Your task to perform on an android device: Open the calendar app, open the side menu, and click the "Day" option Image 0: 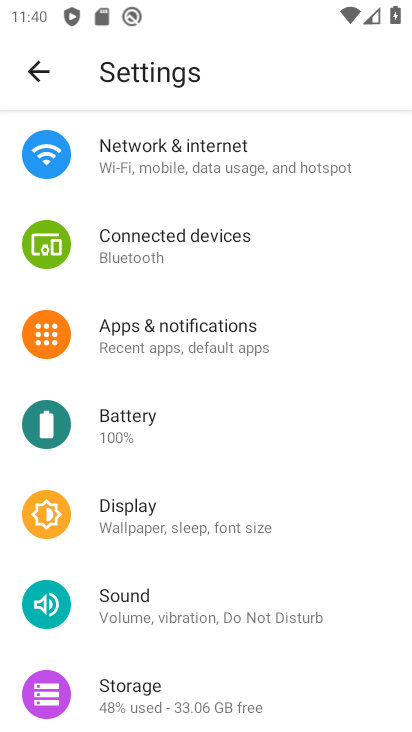
Step 0: click (268, 209)
Your task to perform on an android device: Open the calendar app, open the side menu, and click the "Day" option Image 1: 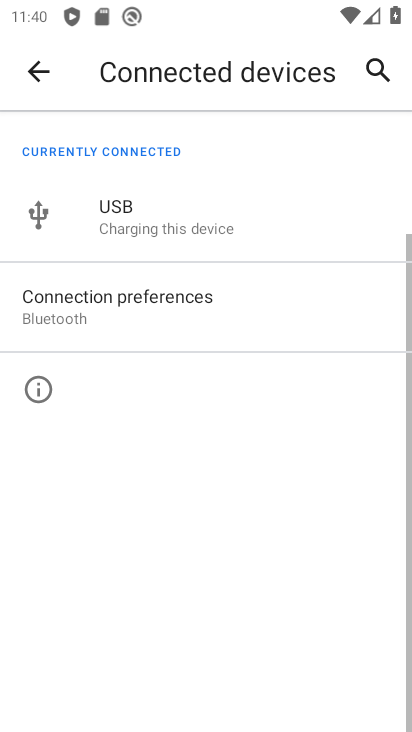
Step 1: drag from (154, 208) to (187, 634)
Your task to perform on an android device: Open the calendar app, open the side menu, and click the "Day" option Image 2: 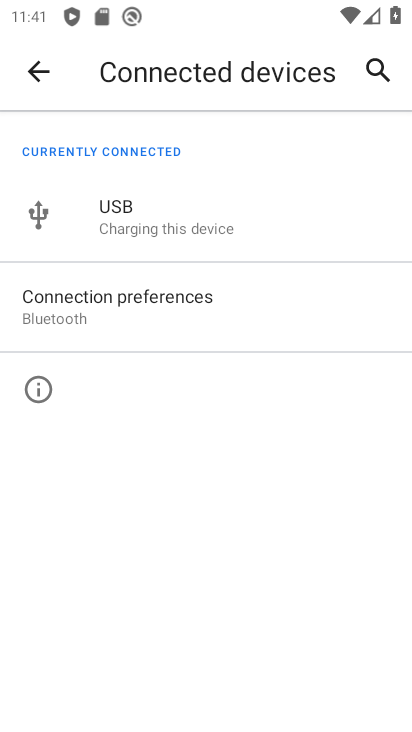
Step 2: press home button
Your task to perform on an android device: Open the calendar app, open the side menu, and click the "Day" option Image 3: 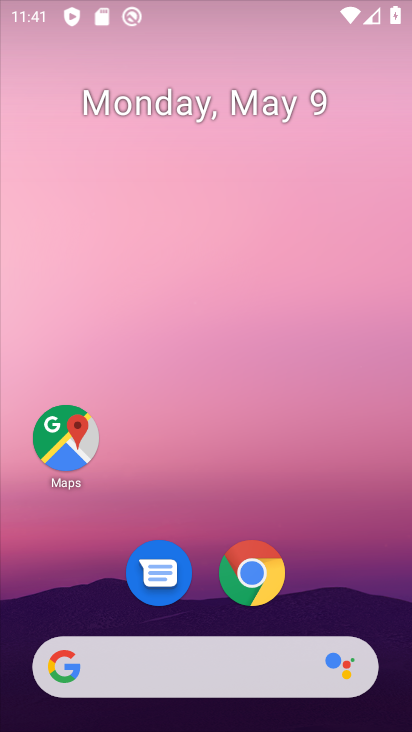
Step 3: drag from (189, 662) to (219, 159)
Your task to perform on an android device: Open the calendar app, open the side menu, and click the "Day" option Image 4: 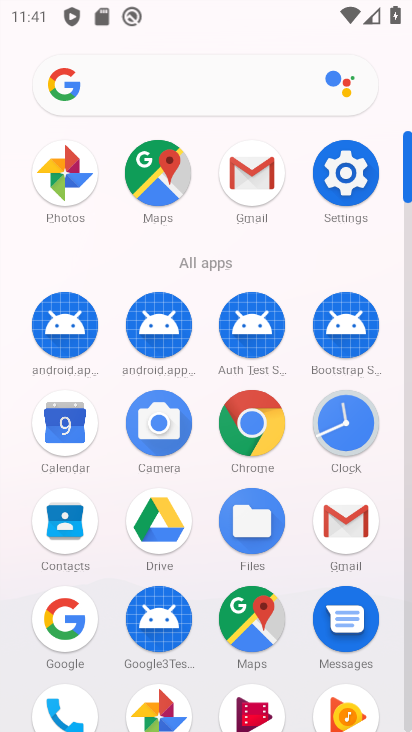
Step 4: drag from (196, 647) to (209, 254)
Your task to perform on an android device: Open the calendar app, open the side menu, and click the "Day" option Image 5: 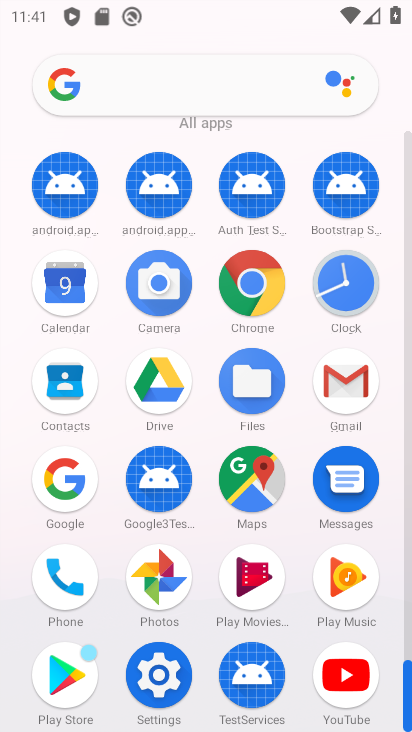
Step 5: click (57, 289)
Your task to perform on an android device: Open the calendar app, open the side menu, and click the "Day" option Image 6: 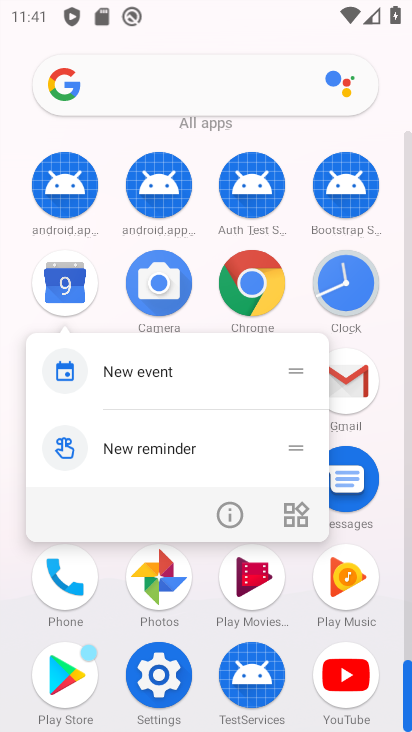
Step 6: click (237, 512)
Your task to perform on an android device: Open the calendar app, open the side menu, and click the "Day" option Image 7: 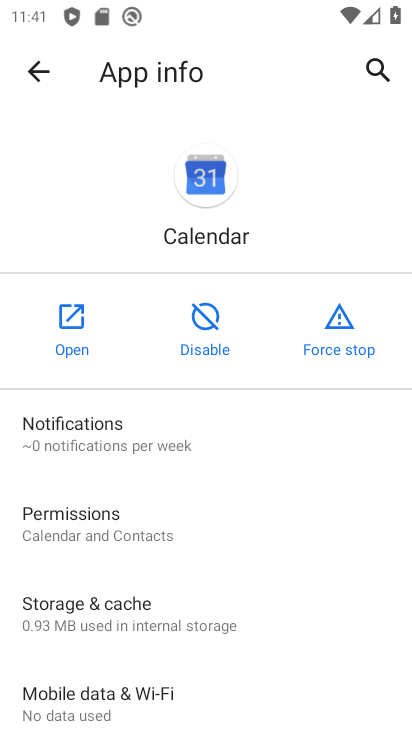
Step 7: click (78, 314)
Your task to perform on an android device: Open the calendar app, open the side menu, and click the "Day" option Image 8: 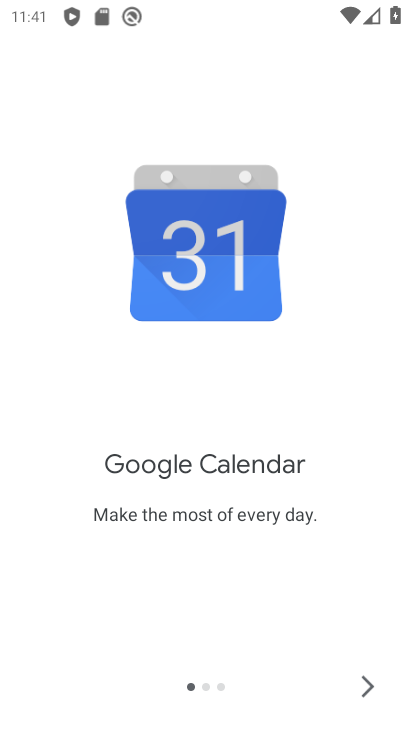
Step 8: click (377, 701)
Your task to perform on an android device: Open the calendar app, open the side menu, and click the "Day" option Image 9: 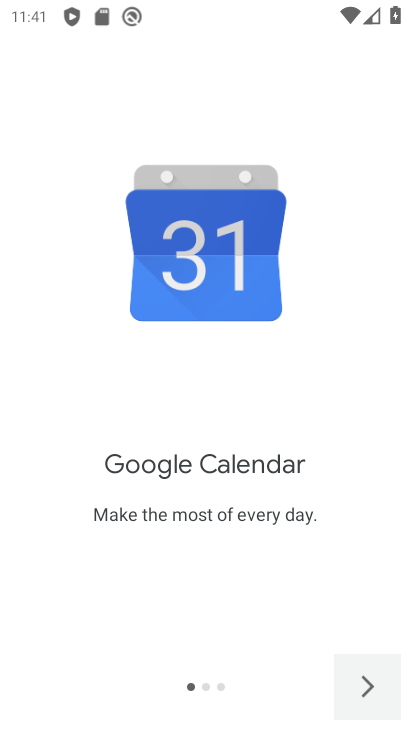
Step 9: click (374, 698)
Your task to perform on an android device: Open the calendar app, open the side menu, and click the "Day" option Image 10: 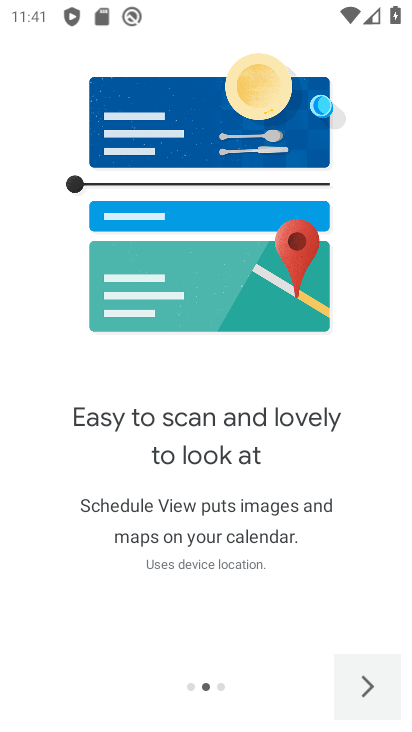
Step 10: click (374, 698)
Your task to perform on an android device: Open the calendar app, open the side menu, and click the "Day" option Image 11: 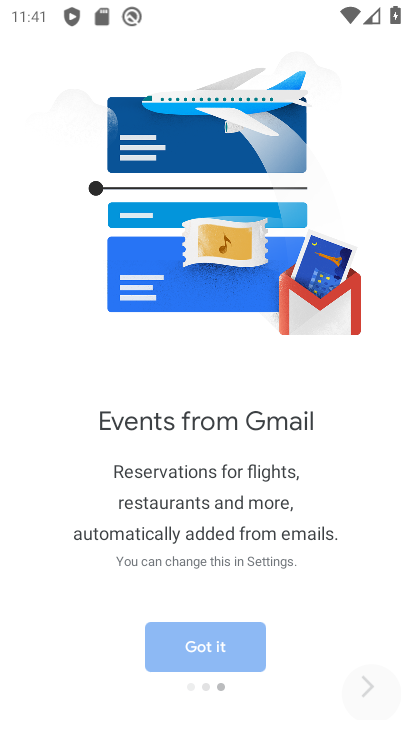
Step 11: click (374, 698)
Your task to perform on an android device: Open the calendar app, open the side menu, and click the "Day" option Image 12: 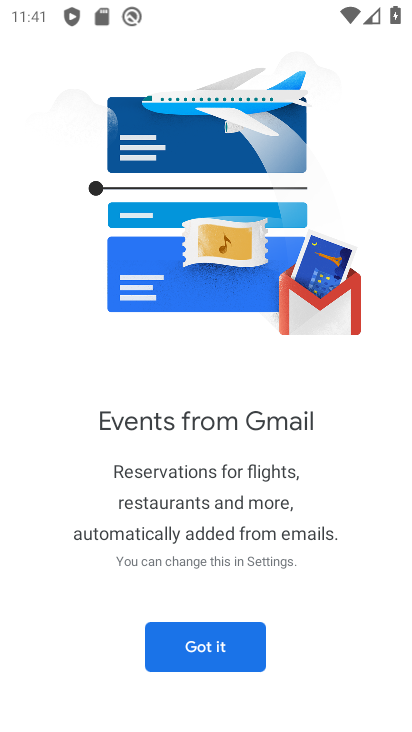
Step 12: click (201, 653)
Your task to perform on an android device: Open the calendar app, open the side menu, and click the "Day" option Image 13: 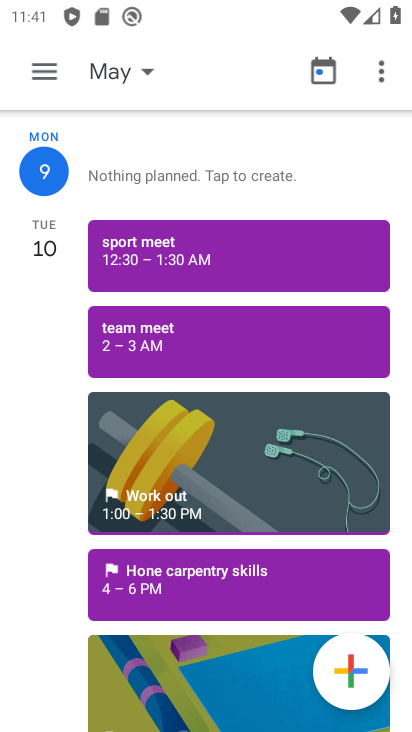
Step 13: click (30, 76)
Your task to perform on an android device: Open the calendar app, open the side menu, and click the "Day" option Image 14: 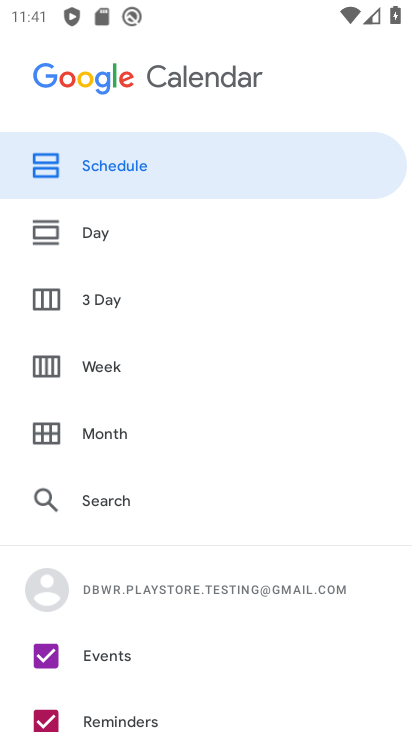
Step 14: click (125, 249)
Your task to perform on an android device: Open the calendar app, open the side menu, and click the "Day" option Image 15: 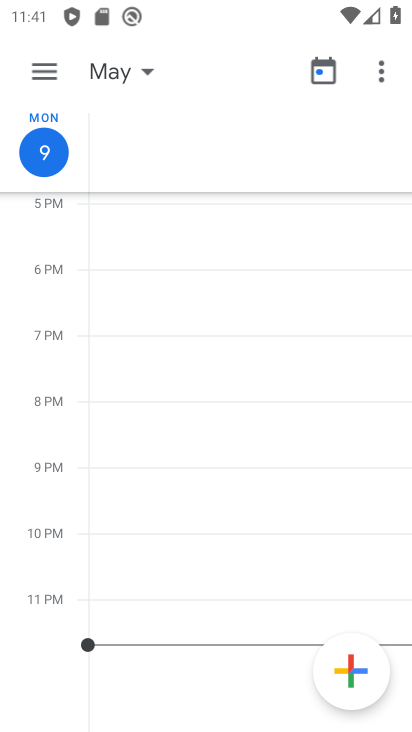
Step 15: task complete